Your task to perform on an android device: install app "Messenger Lite" Image 0: 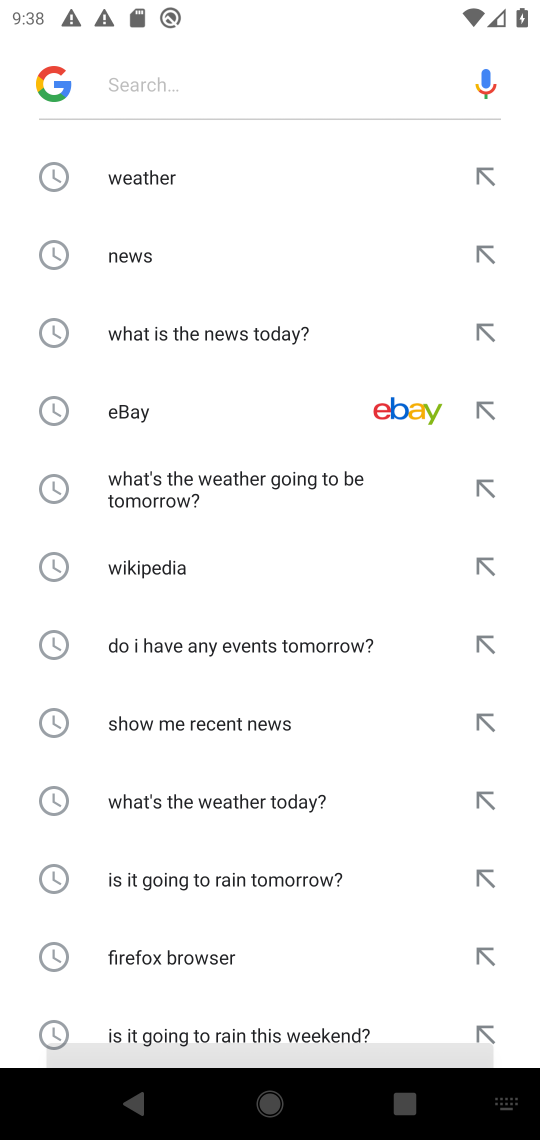
Step 0: press home button
Your task to perform on an android device: install app "Messenger Lite" Image 1: 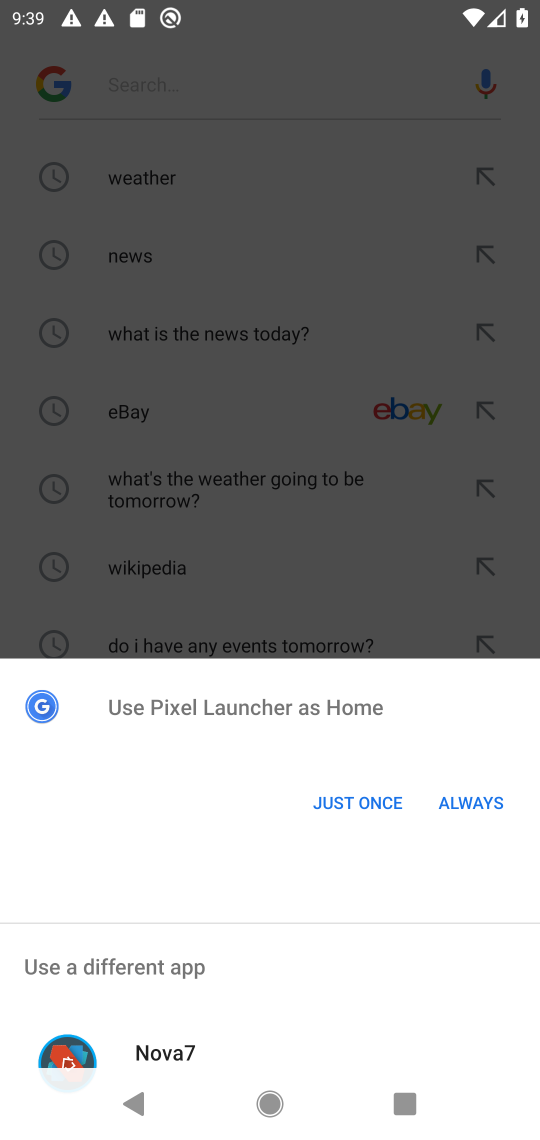
Step 1: click (337, 800)
Your task to perform on an android device: install app "Messenger Lite" Image 2: 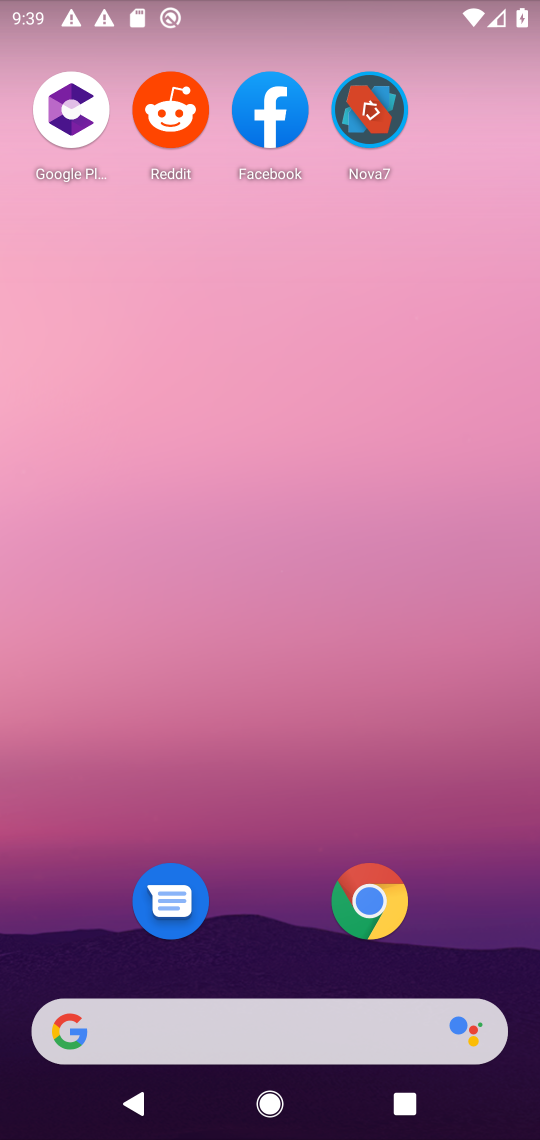
Step 2: drag from (288, 1015) to (207, 147)
Your task to perform on an android device: install app "Messenger Lite" Image 3: 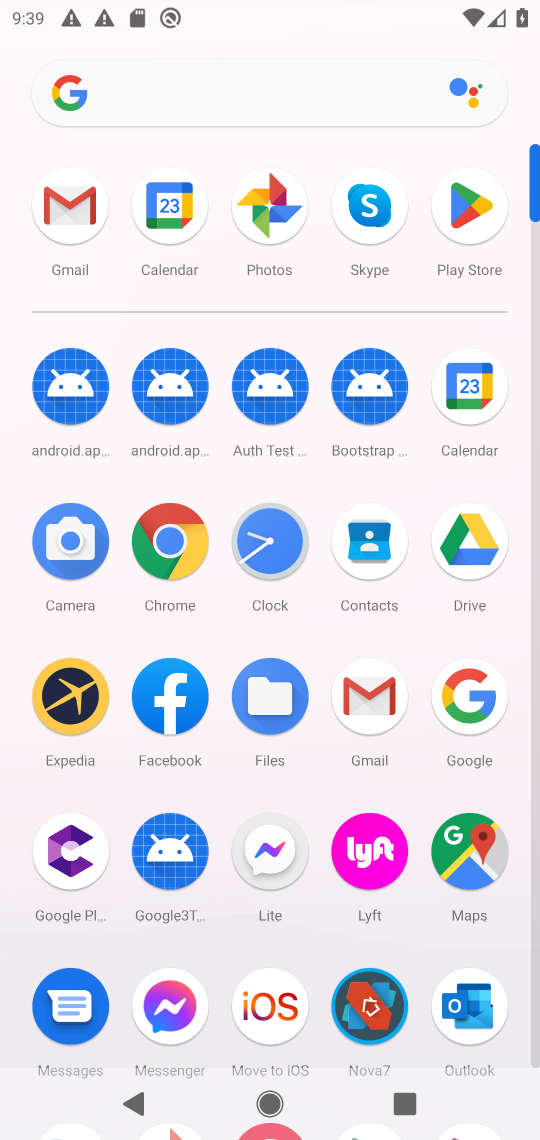
Step 3: click (481, 222)
Your task to perform on an android device: install app "Messenger Lite" Image 4: 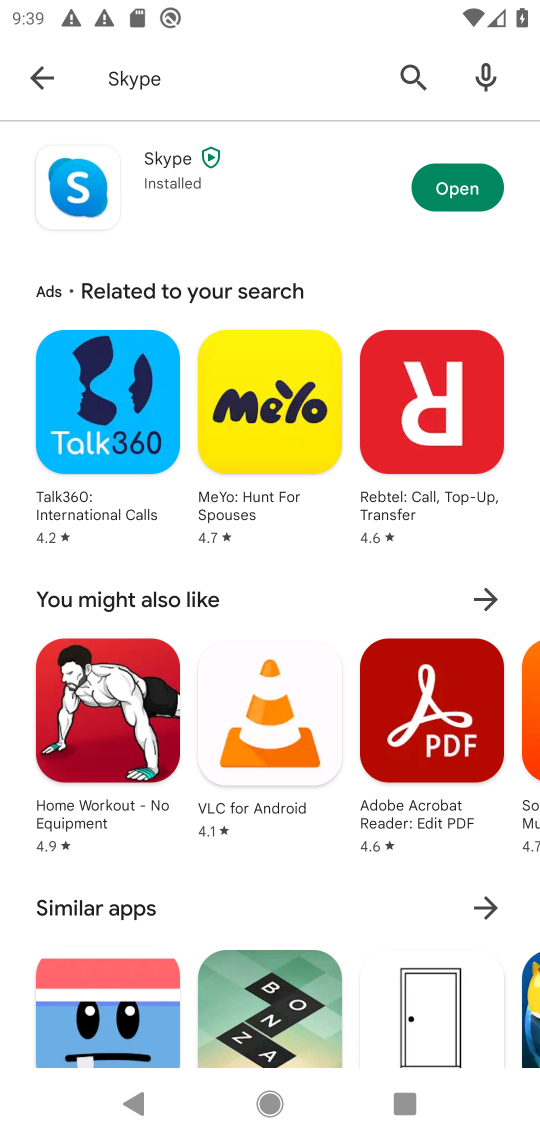
Step 4: press back button
Your task to perform on an android device: install app "Messenger Lite" Image 5: 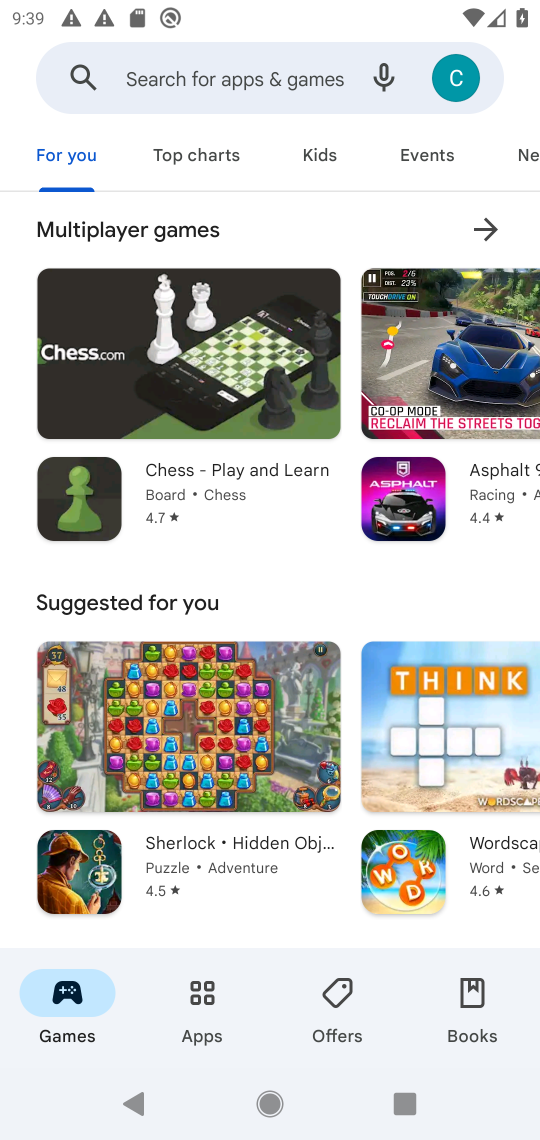
Step 5: click (188, 100)
Your task to perform on an android device: install app "Messenger Lite" Image 6: 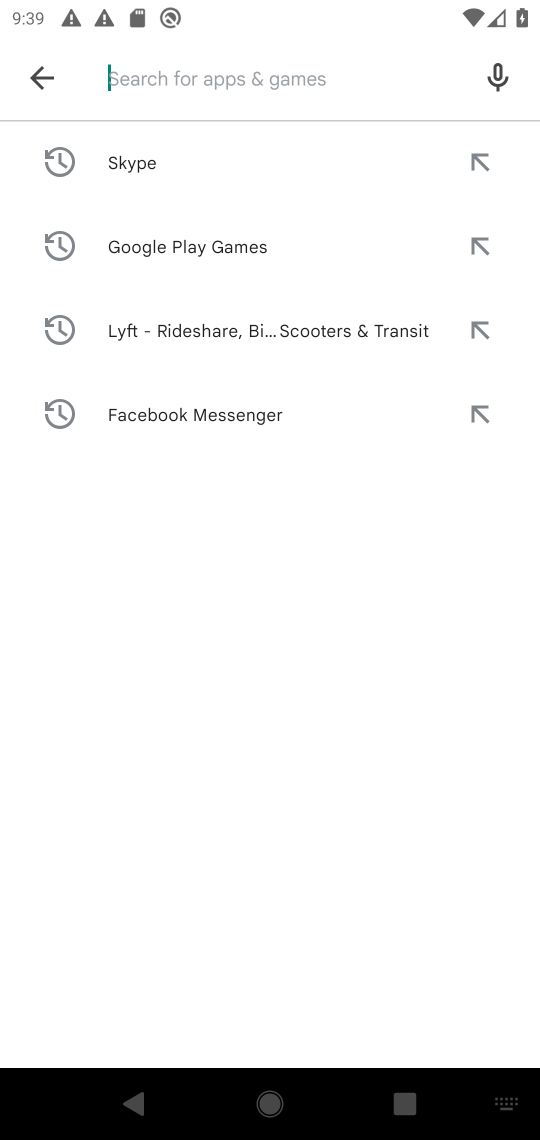
Step 6: type "Messenger Lite"
Your task to perform on an android device: install app "Messenger Lite" Image 7: 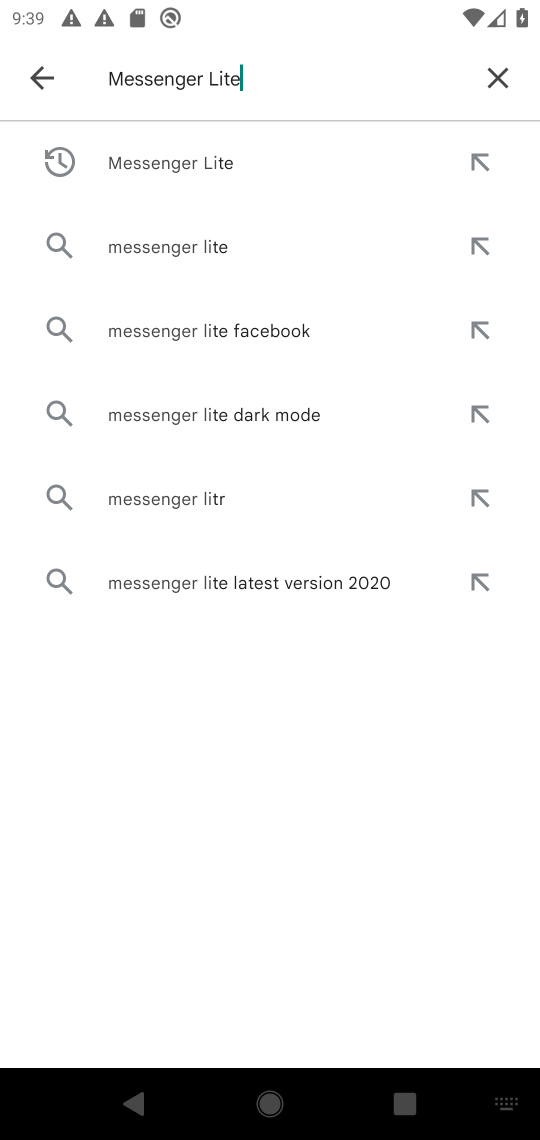
Step 7: press enter
Your task to perform on an android device: install app "Messenger Lite" Image 8: 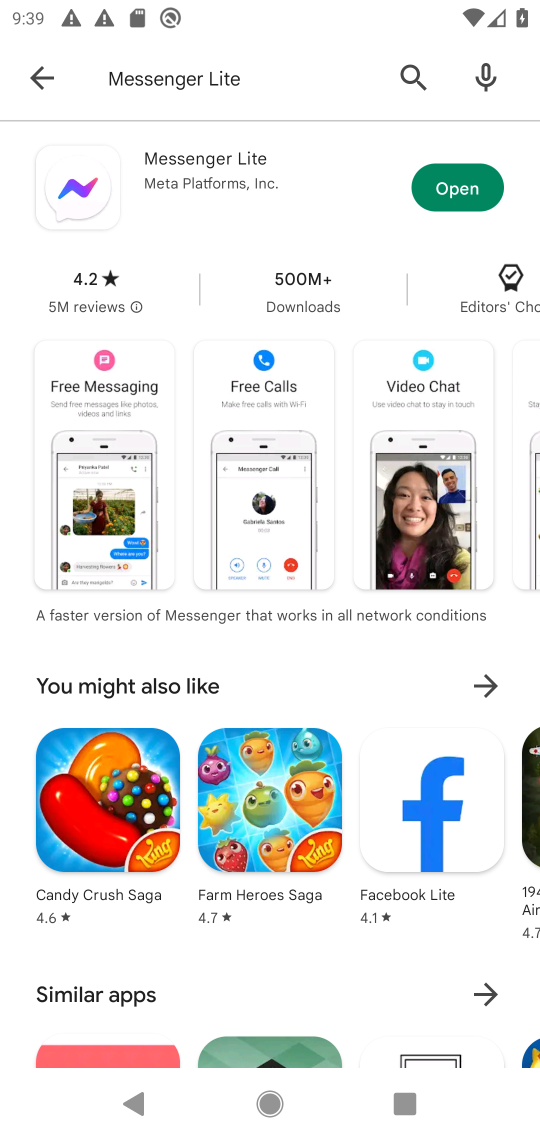
Step 8: click (468, 178)
Your task to perform on an android device: install app "Messenger Lite" Image 9: 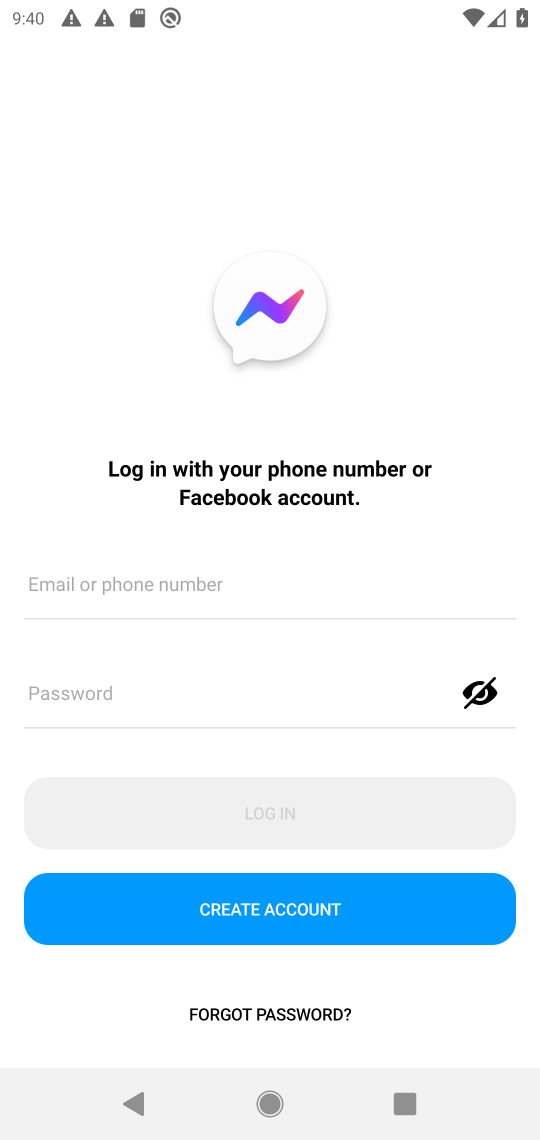
Step 9: task complete